Your task to perform on an android device: Open Google Maps and go to "Timeline" Image 0: 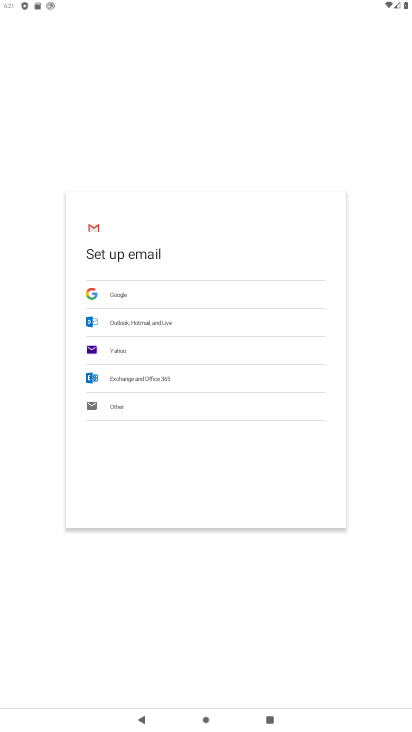
Step 0: press home button
Your task to perform on an android device: Open Google Maps and go to "Timeline" Image 1: 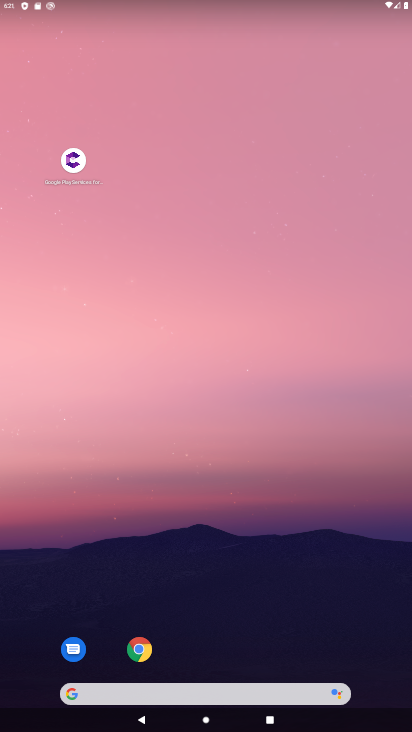
Step 1: drag from (237, 608) to (372, 13)
Your task to perform on an android device: Open Google Maps and go to "Timeline" Image 2: 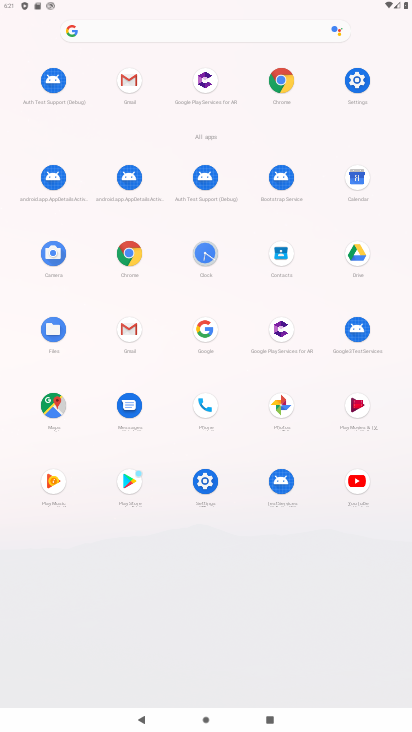
Step 2: click (50, 399)
Your task to perform on an android device: Open Google Maps and go to "Timeline" Image 3: 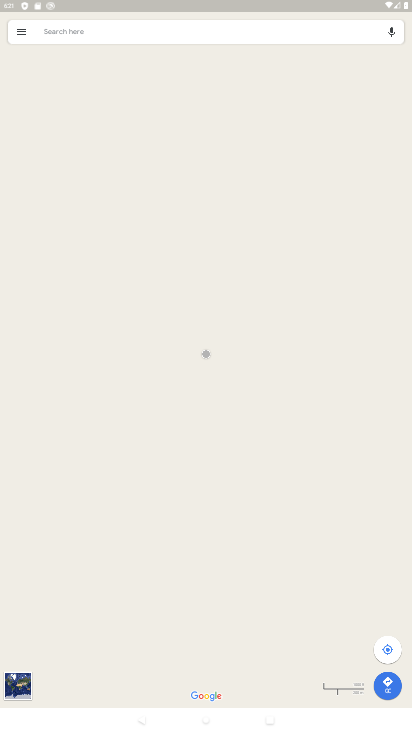
Step 3: click (23, 29)
Your task to perform on an android device: Open Google Maps and go to "Timeline" Image 4: 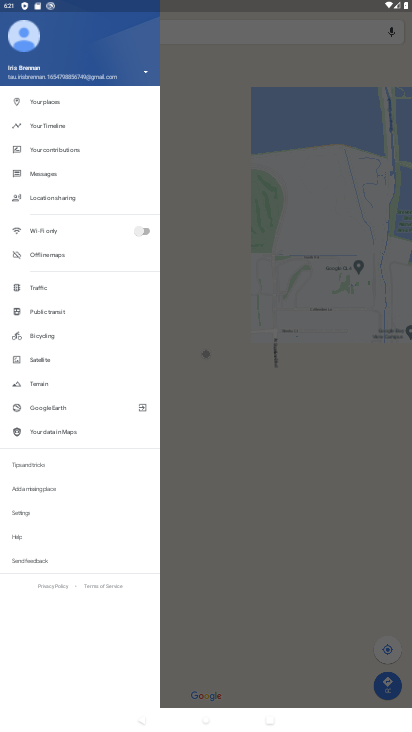
Step 4: click (55, 126)
Your task to perform on an android device: Open Google Maps and go to "Timeline" Image 5: 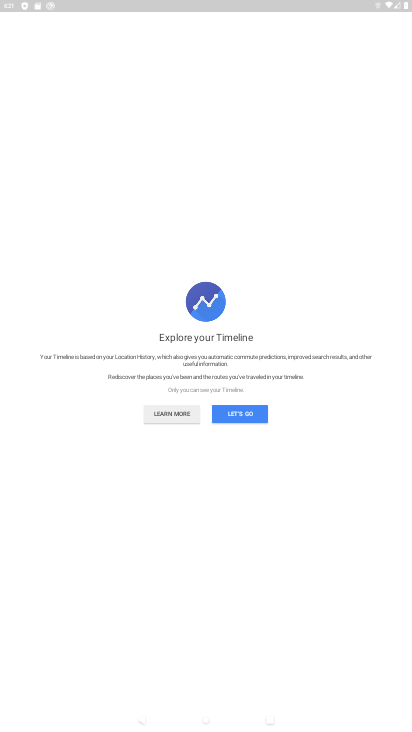
Step 5: click (248, 407)
Your task to perform on an android device: Open Google Maps and go to "Timeline" Image 6: 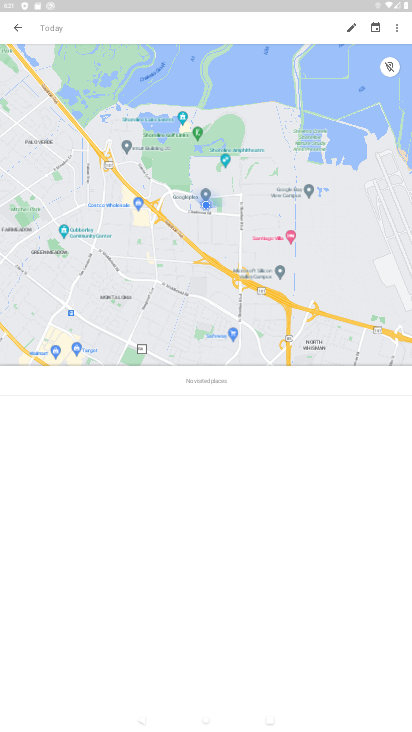
Step 6: task complete